Your task to perform on an android device: turn pop-ups on in chrome Image 0: 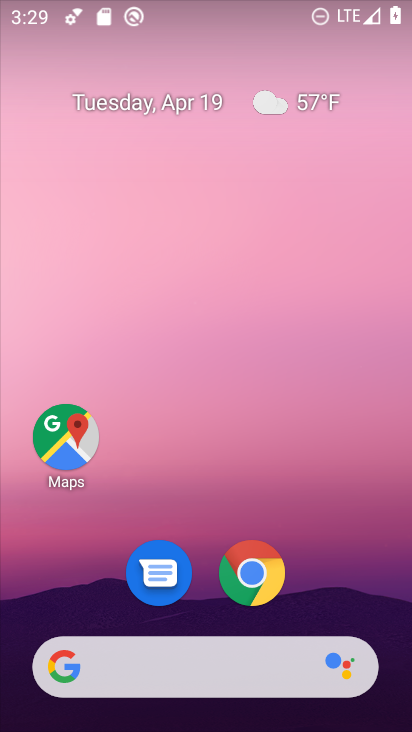
Step 0: click (250, 575)
Your task to perform on an android device: turn pop-ups on in chrome Image 1: 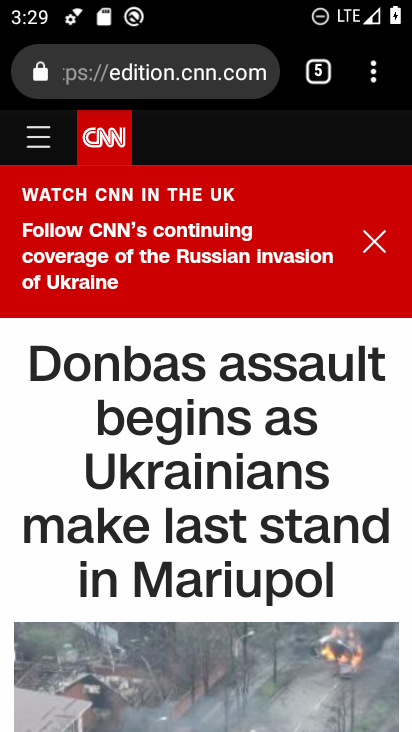
Step 1: click (375, 76)
Your task to perform on an android device: turn pop-ups on in chrome Image 2: 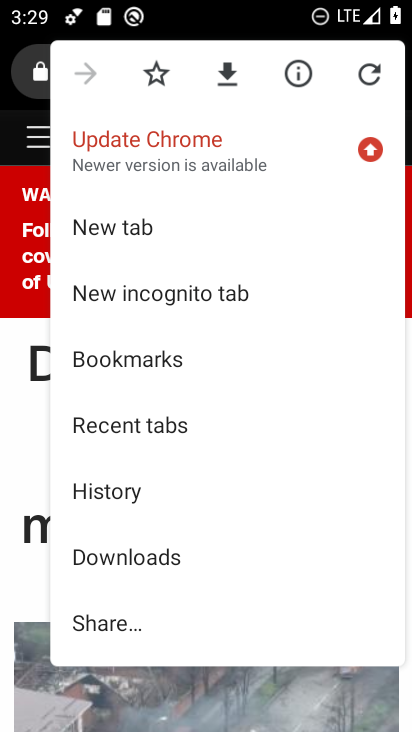
Step 2: drag from (308, 560) to (297, 140)
Your task to perform on an android device: turn pop-ups on in chrome Image 3: 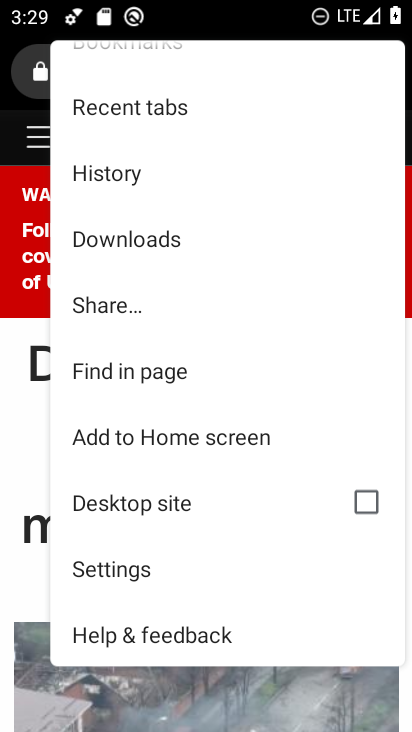
Step 3: drag from (270, 530) to (232, 201)
Your task to perform on an android device: turn pop-ups on in chrome Image 4: 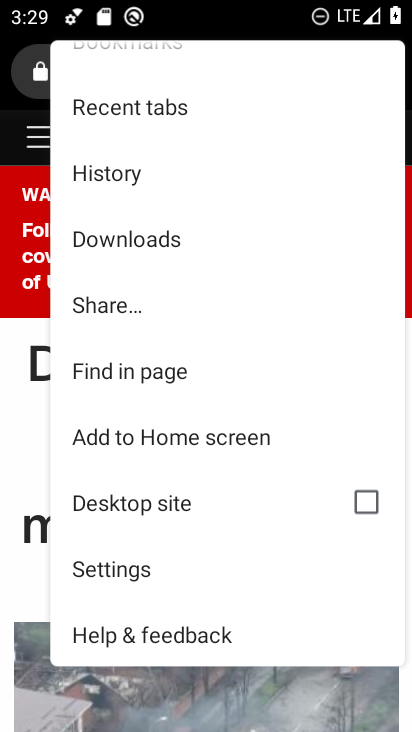
Step 4: click (111, 571)
Your task to perform on an android device: turn pop-ups on in chrome Image 5: 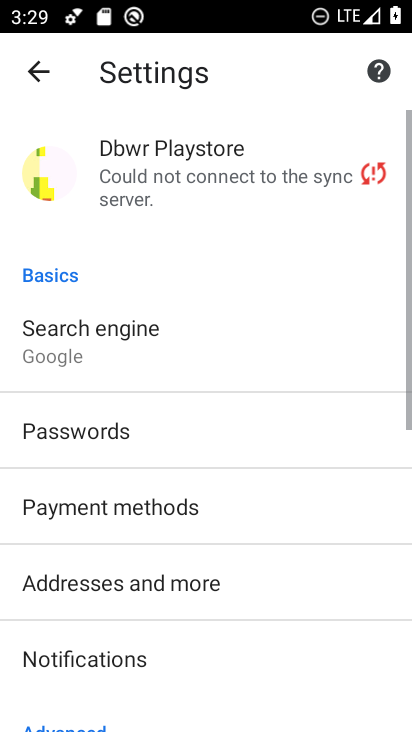
Step 5: drag from (207, 618) to (202, 250)
Your task to perform on an android device: turn pop-ups on in chrome Image 6: 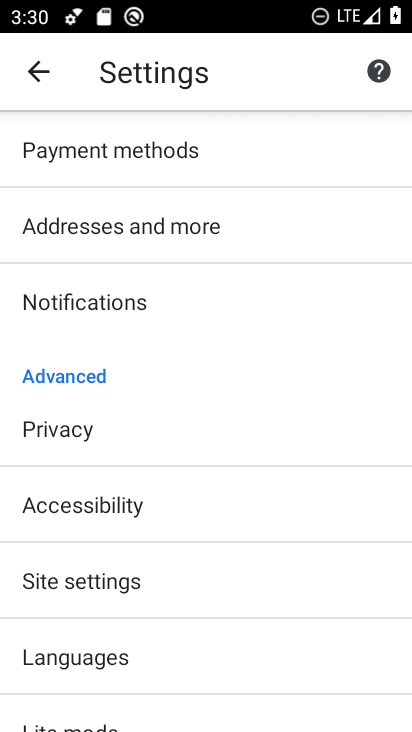
Step 6: drag from (222, 565) to (185, 260)
Your task to perform on an android device: turn pop-ups on in chrome Image 7: 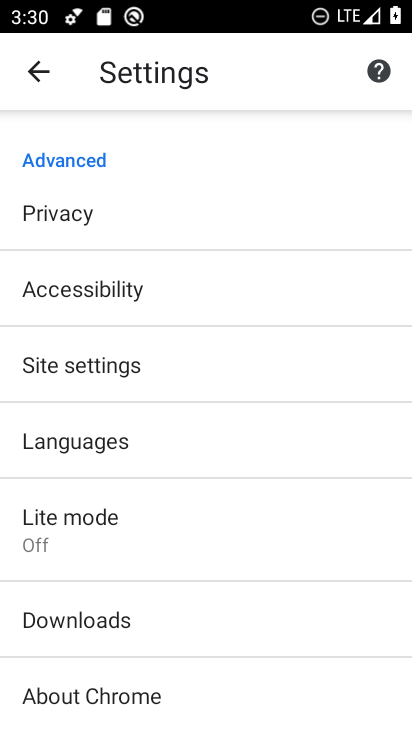
Step 7: click (62, 367)
Your task to perform on an android device: turn pop-ups on in chrome Image 8: 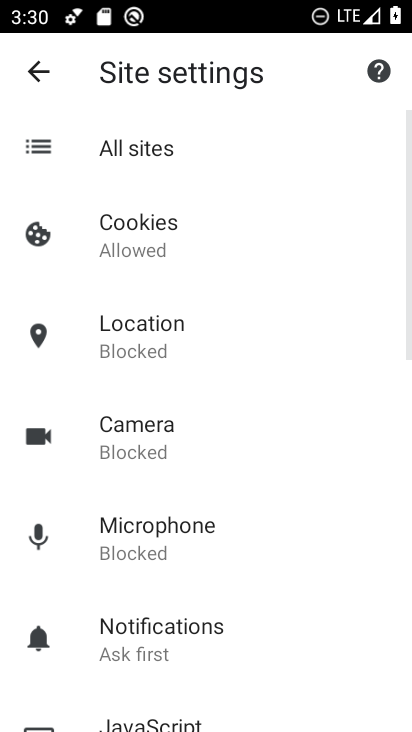
Step 8: drag from (285, 615) to (226, 154)
Your task to perform on an android device: turn pop-ups on in chrome Image 9: 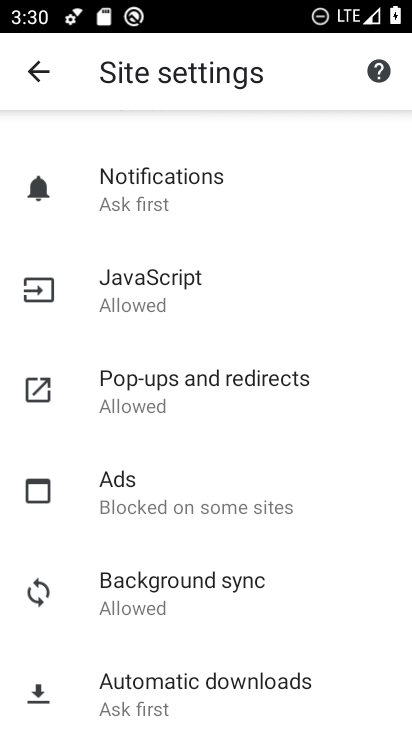
Step 9: click (139, 389)
Your task to perform on an android device: turn pop-ups on in chrome Image 10: 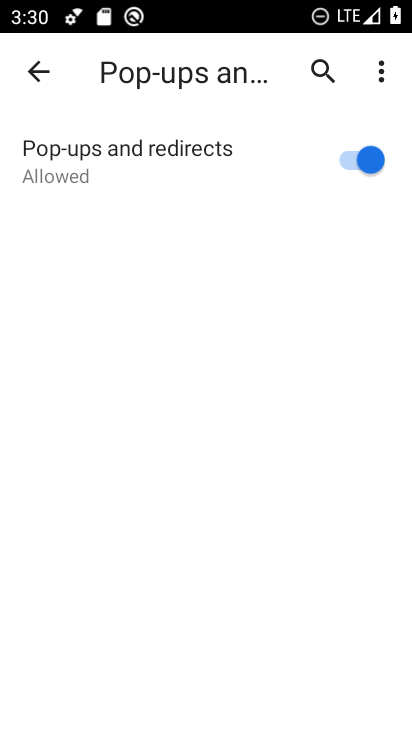
Step 10: task complete